Your task to perform on an android device: Open Amazon Image 0: 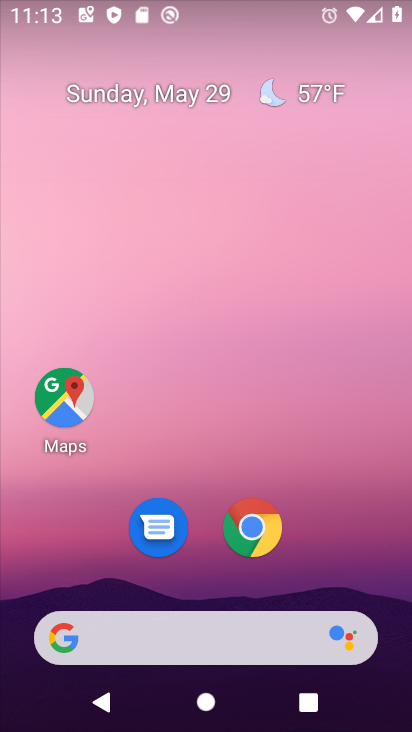
Step 0: click (253, 523)
Your task to perform on an android device: Open Amazon Image 1: 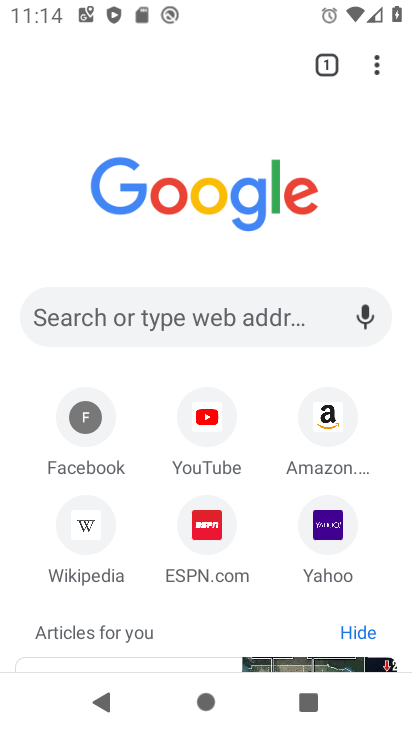
Step 1: click (315, 422)
Your task to perform on an android device: Open Amazon Image 2: 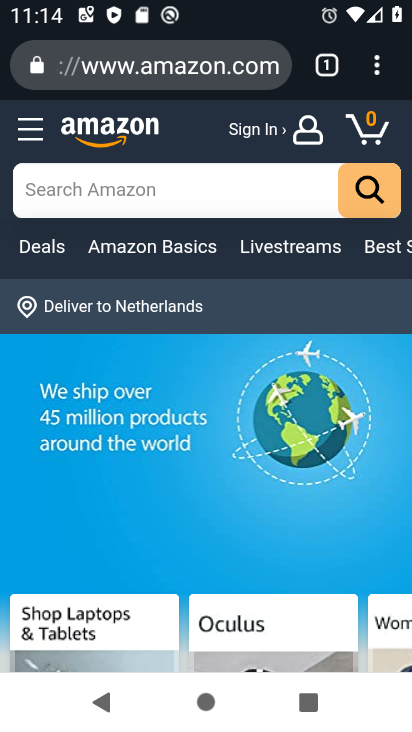
Step 2: task complete